Your task to perform on an android device: star an email in the gmail app Image 0: 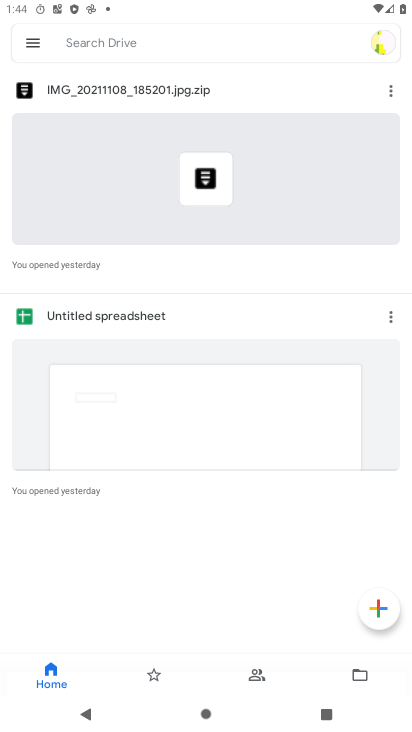
Step 0: press home button
Your task to perform on an android device: star an email in the gmail app Image 1: 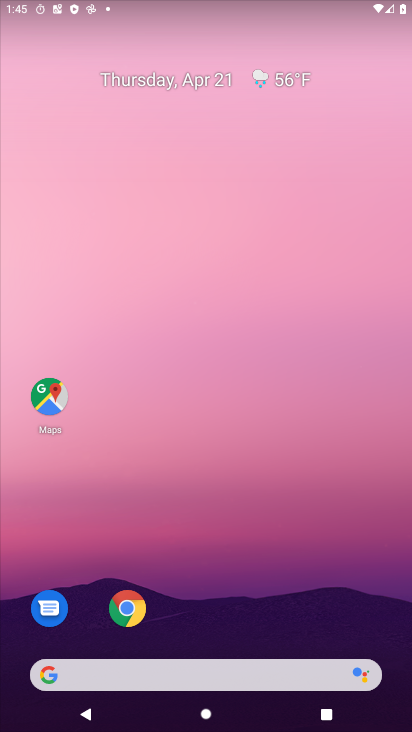
Step 1: drag from (321, 570) to (311, 113)
Your task to perform on an android device: star an email in the gmail app Image 2: 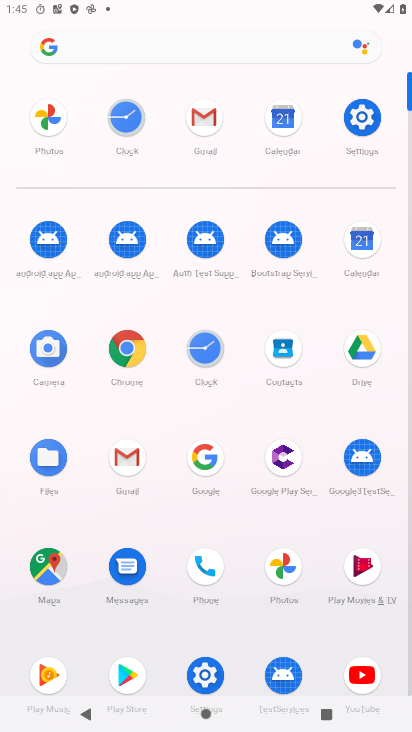
Step 2: click (202, 121)
Your task to perform on an android device: star an email in the gmail app Image 3: 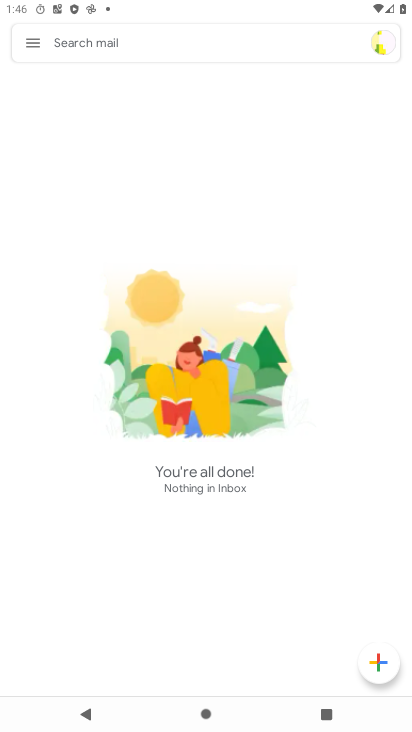
Step 3: click (36, 39)
Your task to perform on an android device: star an email in the gmail app Image 4: 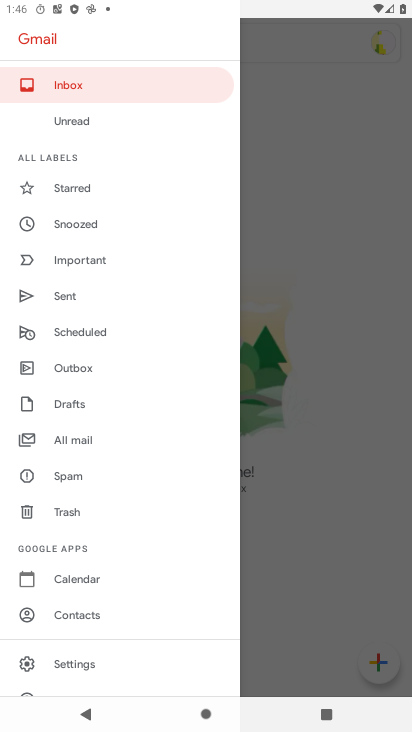
Step 4: click (87, 444)
Your task to perform on an android device: star an email in the gmail app Image 5: 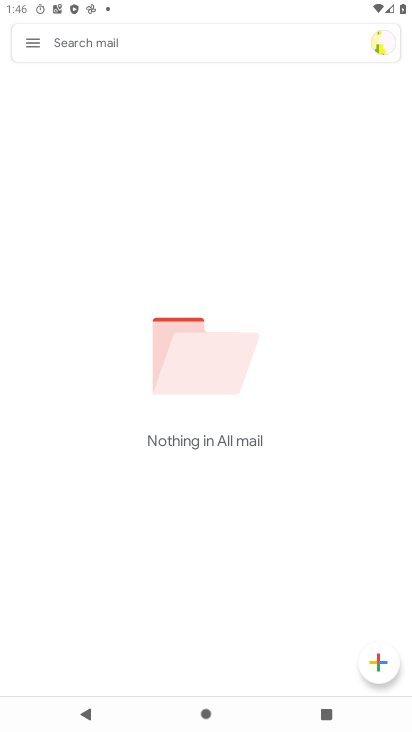
Step 5: task complete